Your task to perform on an android device: change the upload size in google photos Image 0: 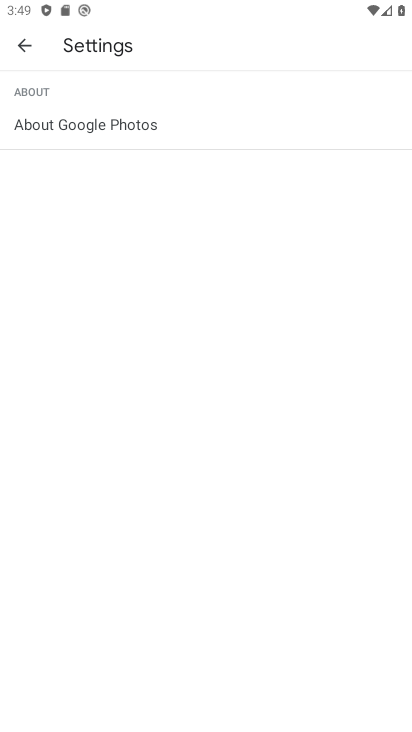
Step 0: press home button
Your task to perform on an android device: change the upload size in google photos Image 1: 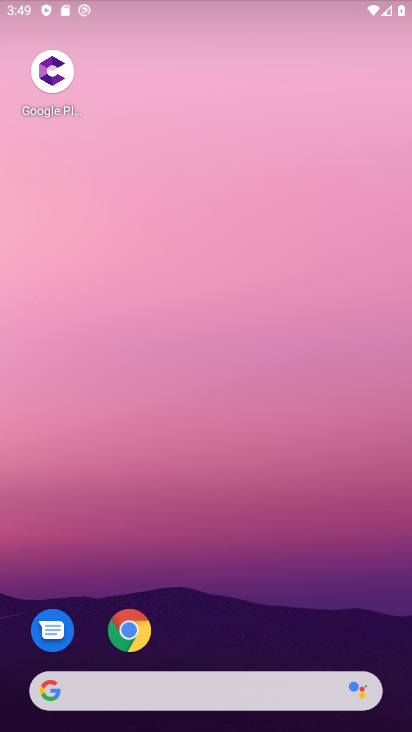
Step 1: drag from (270, 663) to (237, 213)
Your task to perform on an android device: change the upload size in google photos Image 2: 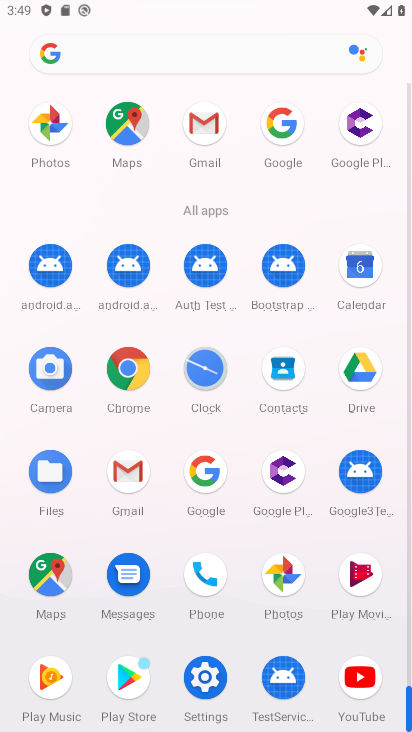
Step 2: click (273, 571)
Your task to perform on an android device: change the upload size in google photos Image 3: 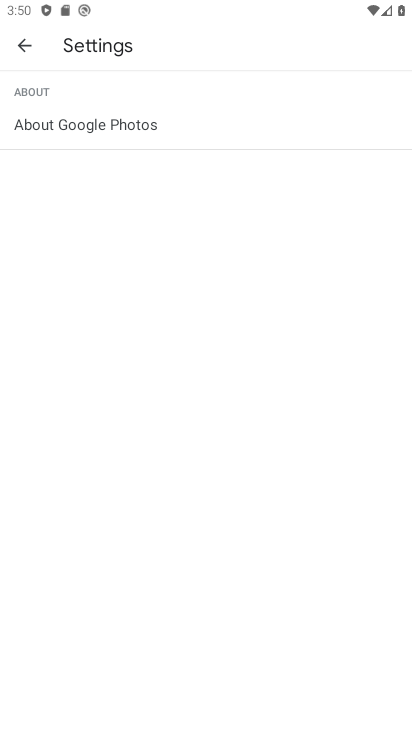
Step 3: click (25, 48)
Your task to perform on an android device: change the upload size in google photos Image 4: 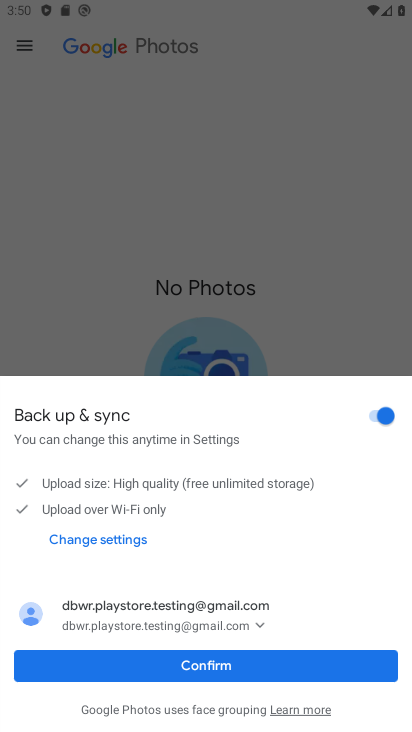
Step 4: click (247, 674)
Your task to perform on an android device: change the upload size in google photos Image 5: 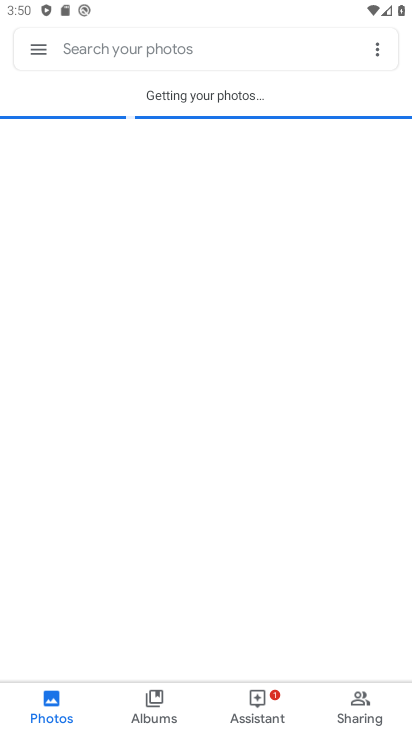
Step 5: click (35, 48)
Your task to perform on an android device: change the upload size in google photos Image 6: 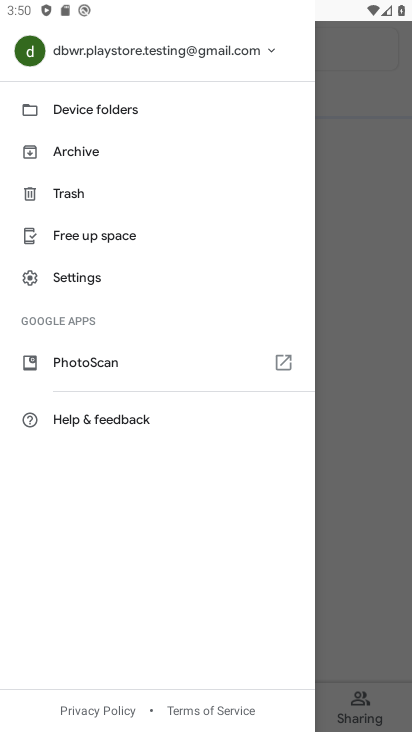
Step 6: click (97, 272)
Your task to perform on an android device: change the upload size in google photos Image 7: 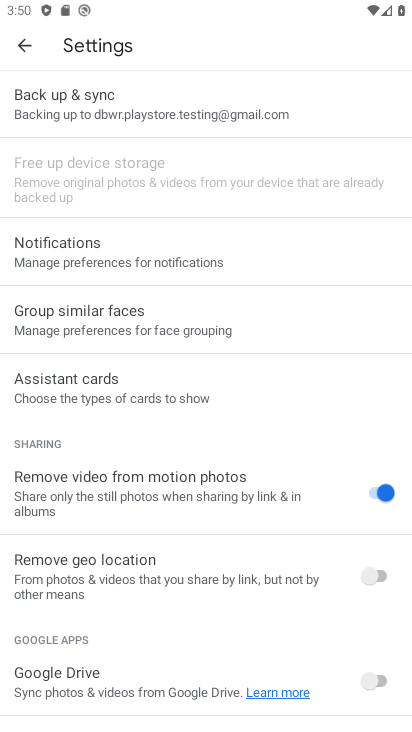
Step 7: click (137, 90)
Your task to perform on an android device: change the upload size in google photos Image 8: 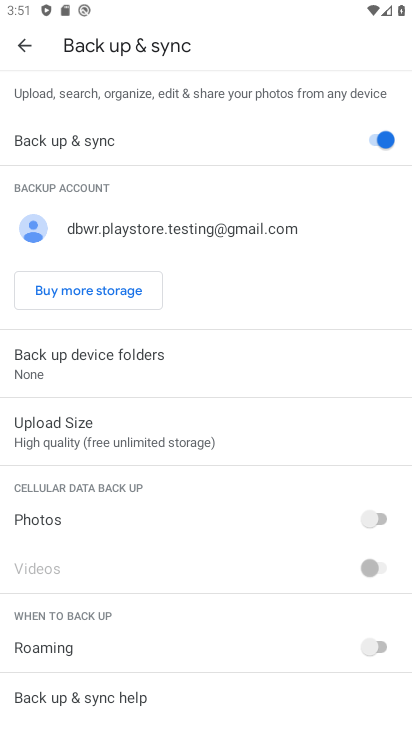
Step 8: click (140, 426)
Your task to perform on an android device: change the upload size in google photos Image 9: 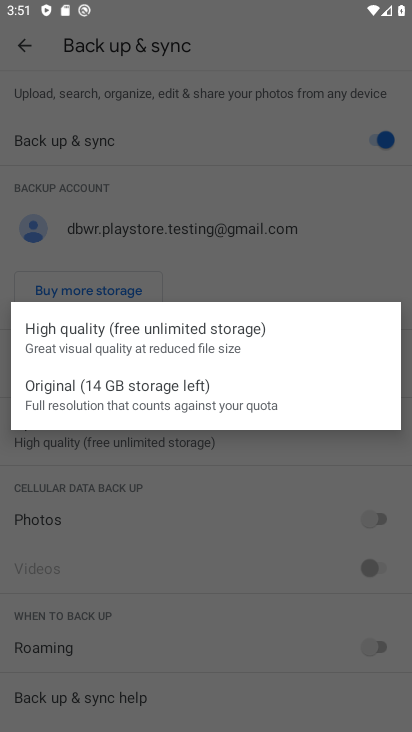
Step 9: click (148, 388)
Your task to perform on an android device: change the upload size in google photos Image 10: 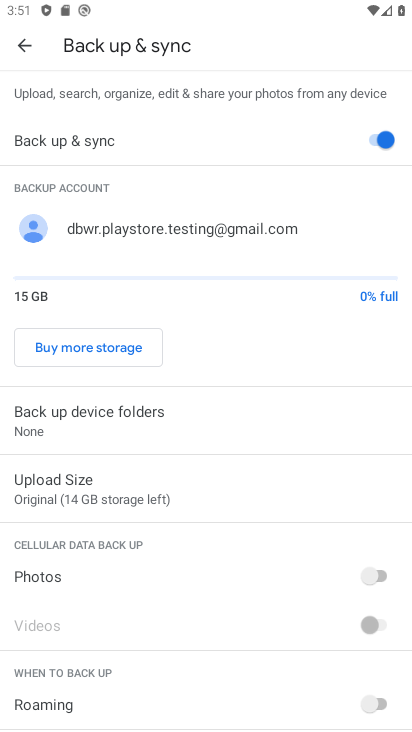
Step 10: task complete